Your task to perform on an android device: Go to Yahoo.com Image 0: 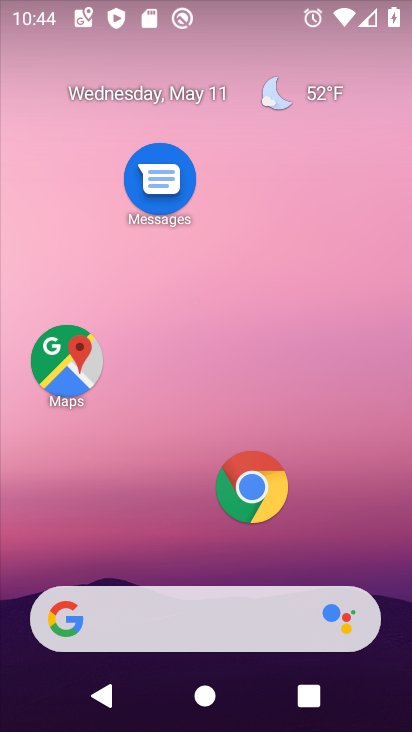
Step 0: click (255, 505)
Your task to perform on an android device: Go to Yahoo.com Image 1: 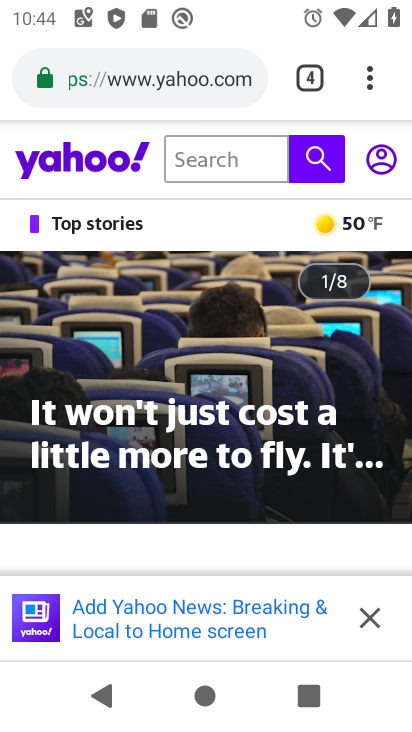
Step 1: task complete